Your task to perform on an android device: Open the calendar and show me this week's events Image 0: 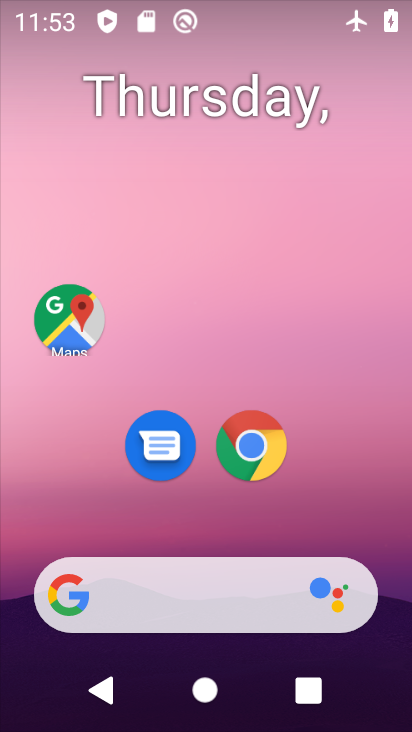
Step 0: drag from (394, 530) to (309, 112)
Your task to perform on an android device: Open the calendar and show me this week's events Image 1: 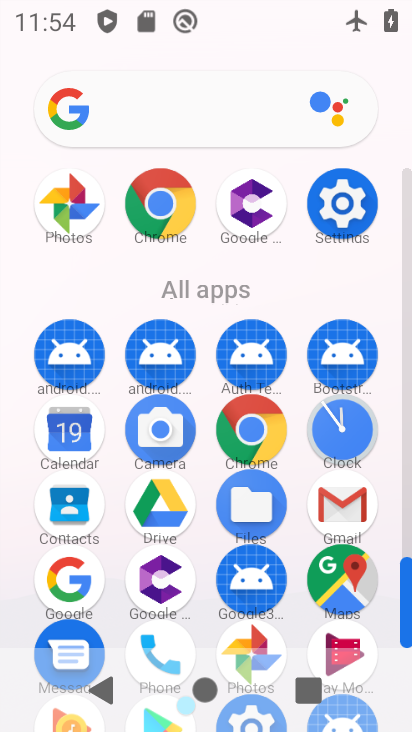
Step 1: click (49, 418)
Your task to perform on an android device: Open the calendar and show me this week's events Image 2: 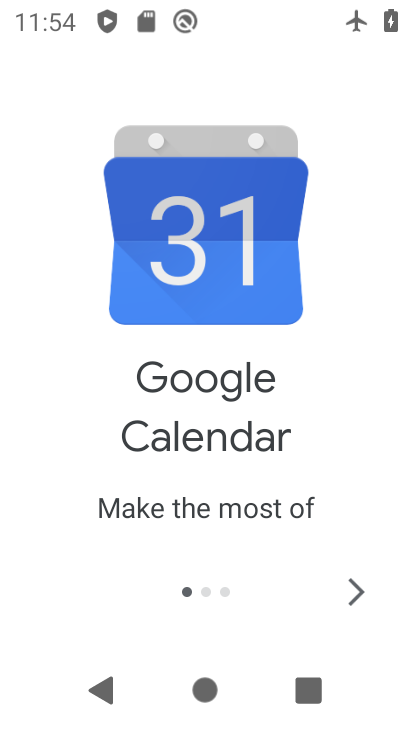
Step 2: click (354, 583)
Your task to perform on an android device: Open the calendar and show me this week's events Image 3: 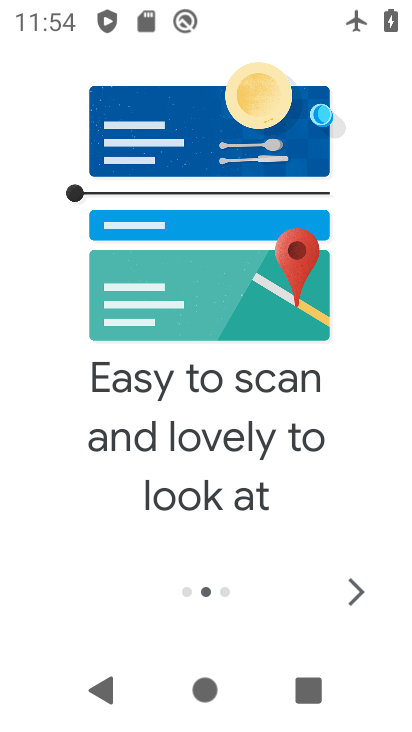
Step 3: click (354, 578)
Your task to perform on an android device: Open the calendar and show me this week's events Image 4: 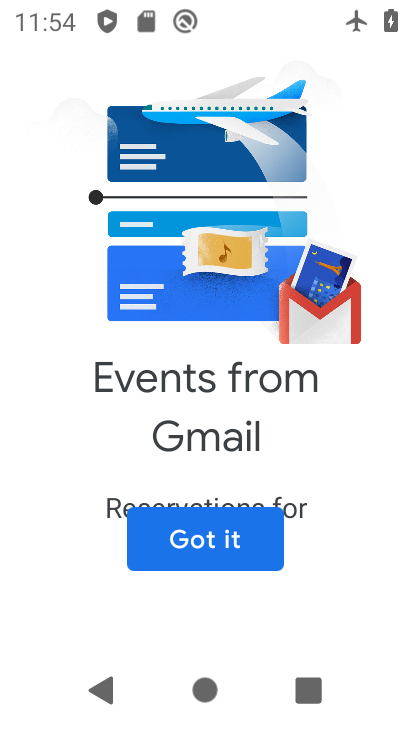
Step 4: click (255, 549)
Your task to perform on an android device: Open the calendar and show me this week's events Image 5: 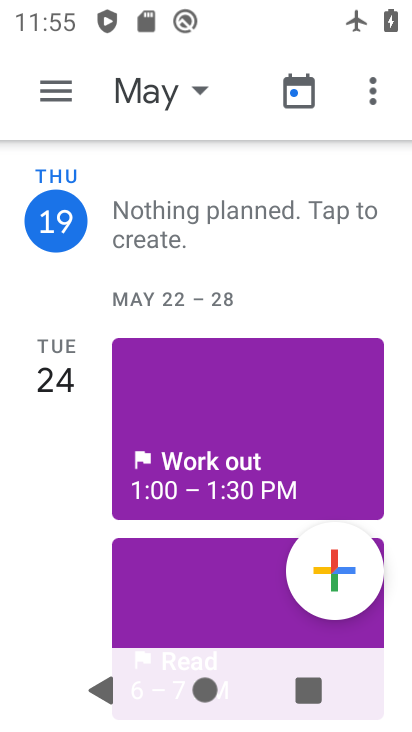
Step 5: click (49, 104)
Your task to perform on an android device: Open the calendar and show me this week's events Image 6: 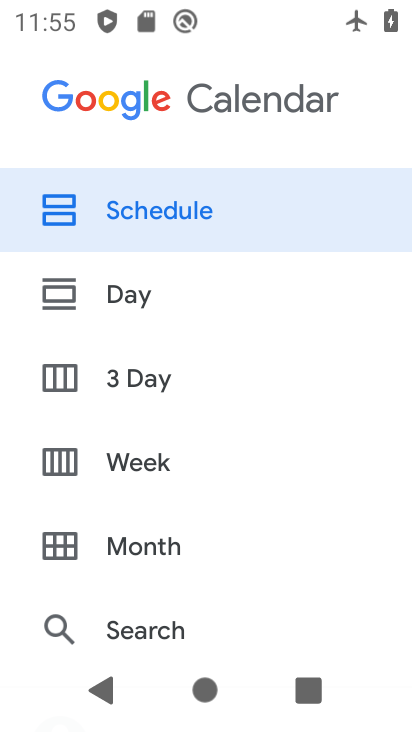
Step 6: click (135, 445)
Your task to perform on an android device: Open the calendar and show me this week's events Image 7: 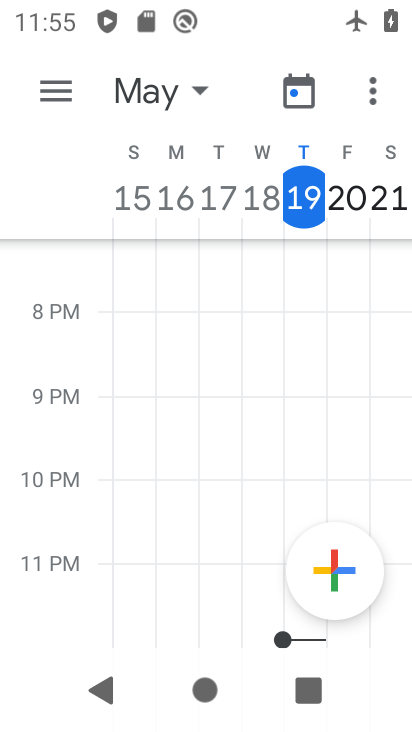
Step 7: task complete